Your task to perform on an android device: Open notification settings Image 0: 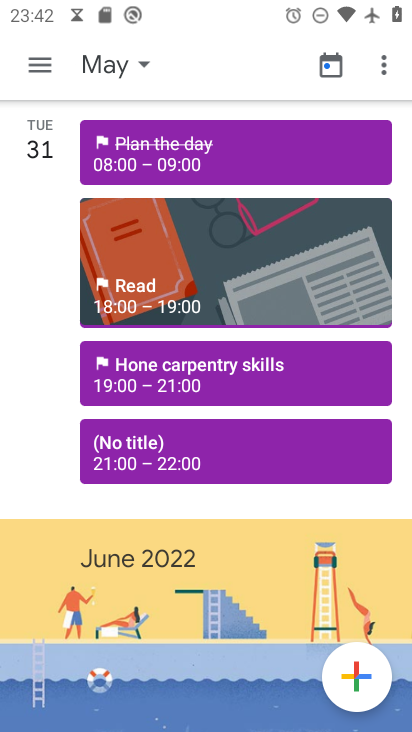
Step 0: press home button
Your task to perform on an android device: Open notification settings Image 1: 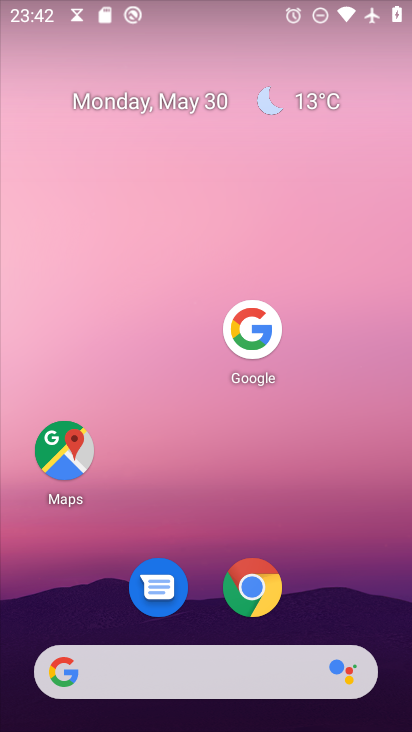
Step 1: drag from (200, 661) to (195, 74)
Your task to perform on an android device: Open notification settings Image 2: 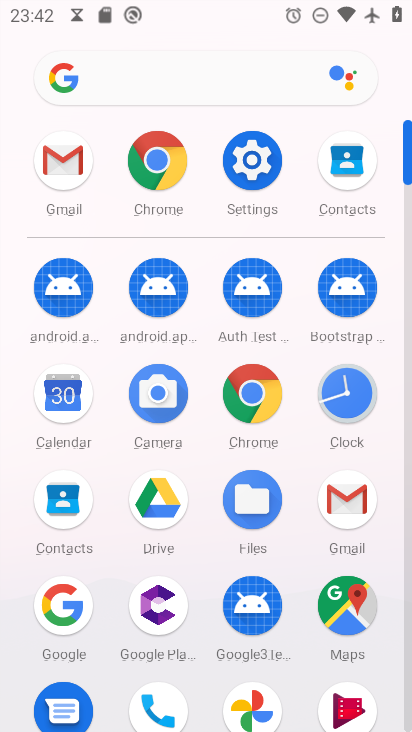
Step 2: click (244, 164)
Your task to perform on an android device: Open notification settings Image 3: 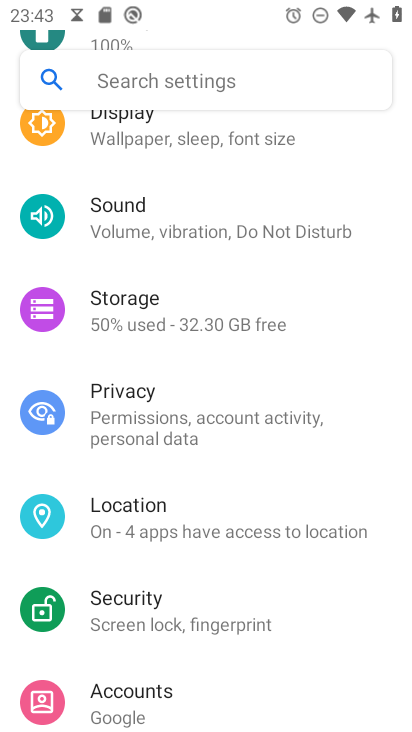
Step 3: drag from (277, 185) to (191, 651)
Your task to perform on an android device: Open notification settings Image 4: 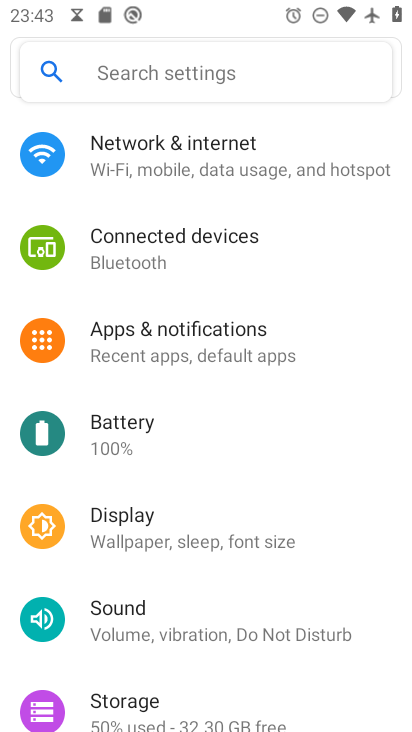
Step 4: click (205, 331)
Your task to perform on an android device: Open notification settings Image 5: 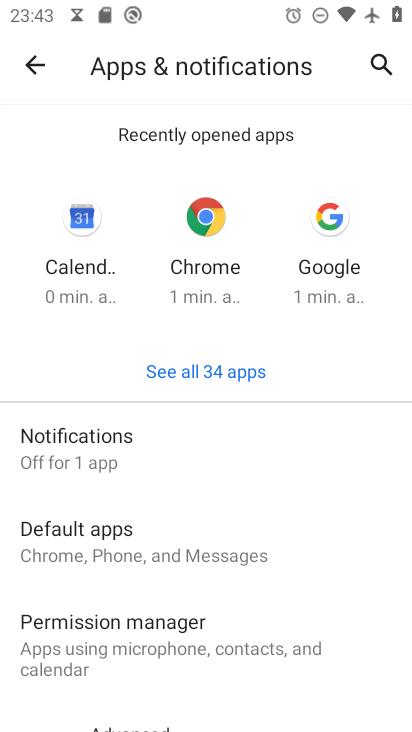
Step 5: click (88, 434)
Your task to perform on an android device: Open notification settings Image 6: 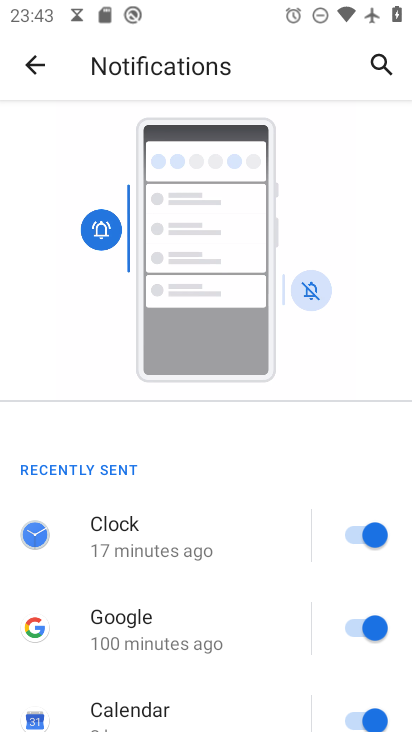
Step 6: task complete